Your task to perform on an android device: Open location settings Image 0: 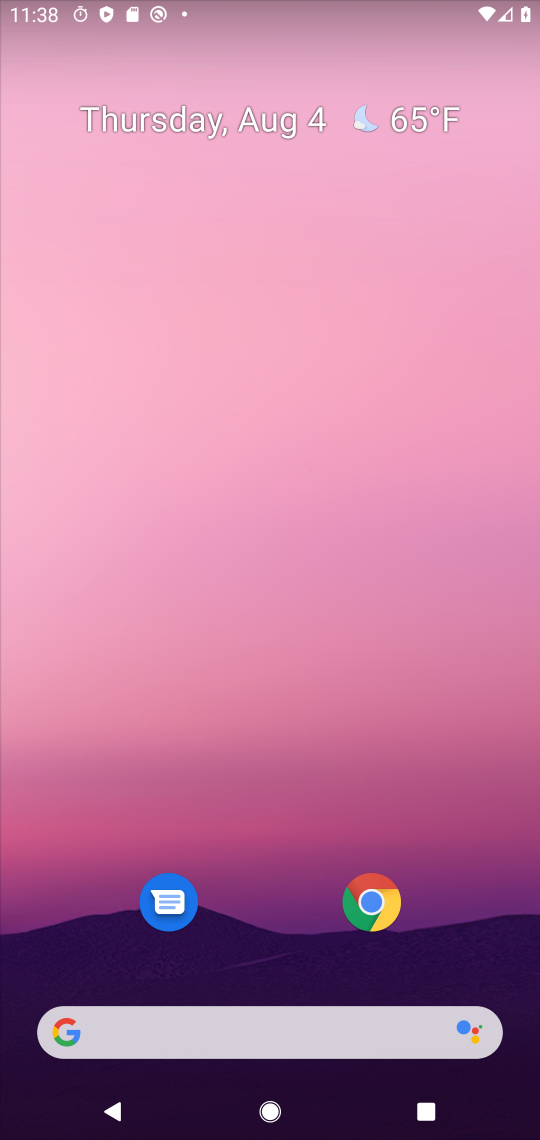
Step 0: press home button
Your task to perform on an android device: Open location settings Image 1: 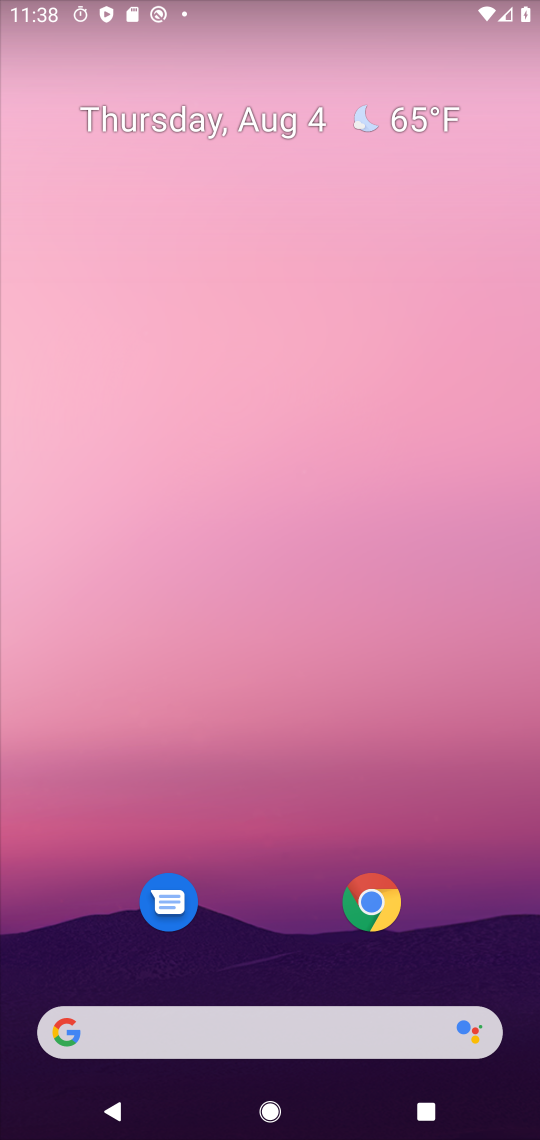
Step 1: drag from (274, 1038) to (377, 476)
Your task to perform on an android device: Open location settings Image 2: 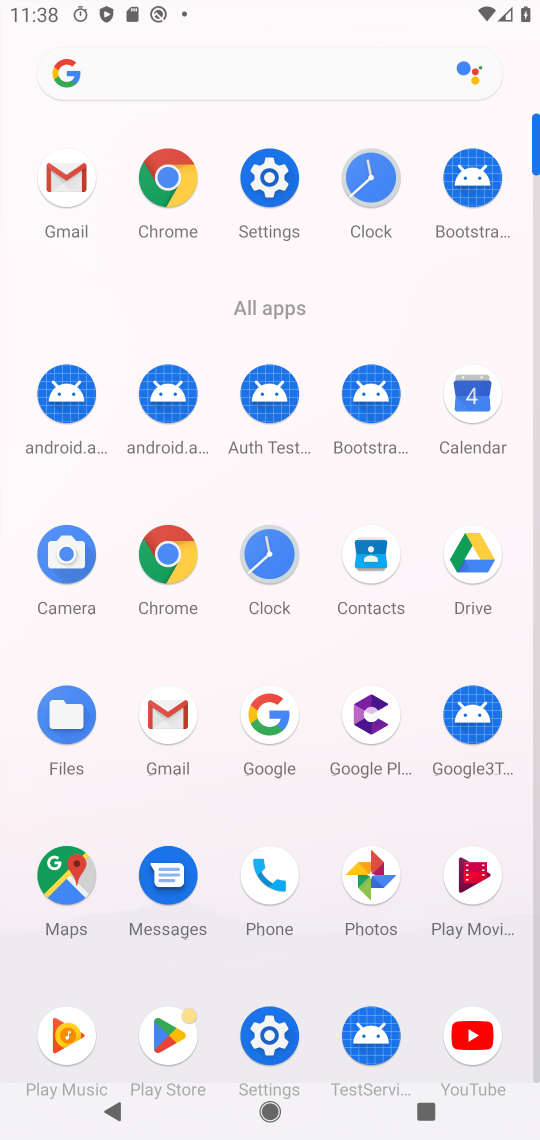
Step 2: click (279, 200)
Your task to perform on an android device: Open location settings Image 3: 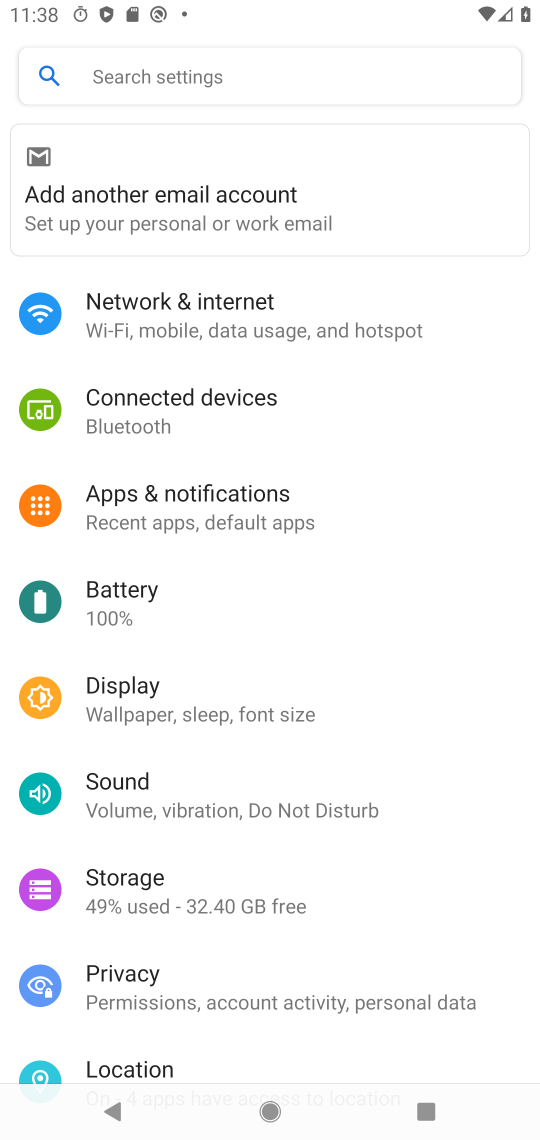
Step 3: click (163, 1054)
Your task to perform on an android device: Open location settings Image 4: 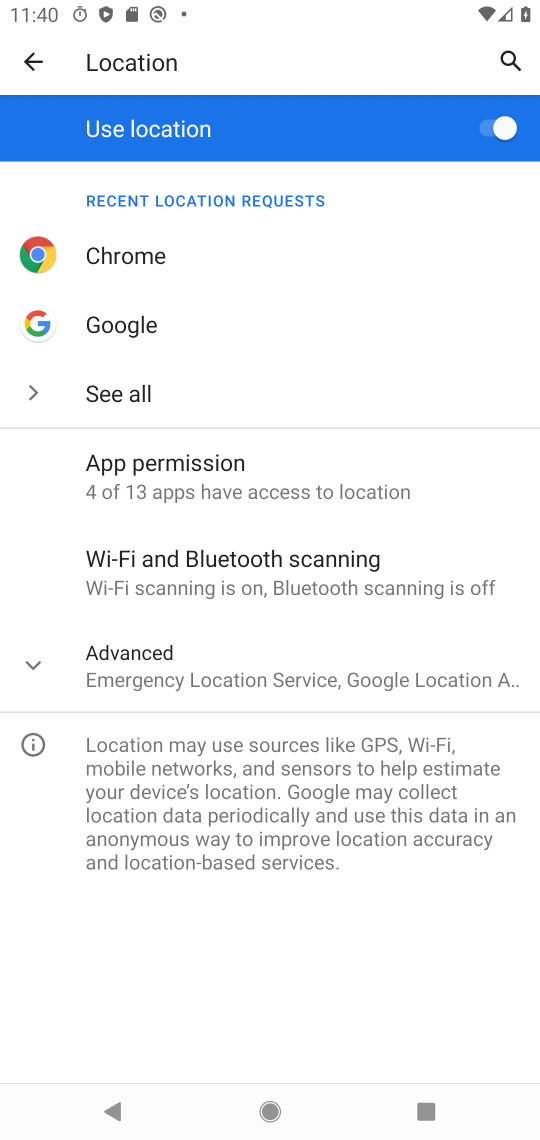
Step 4: task complete